Your task to perform on an android device: turn off translation in the chrome app Image 0: 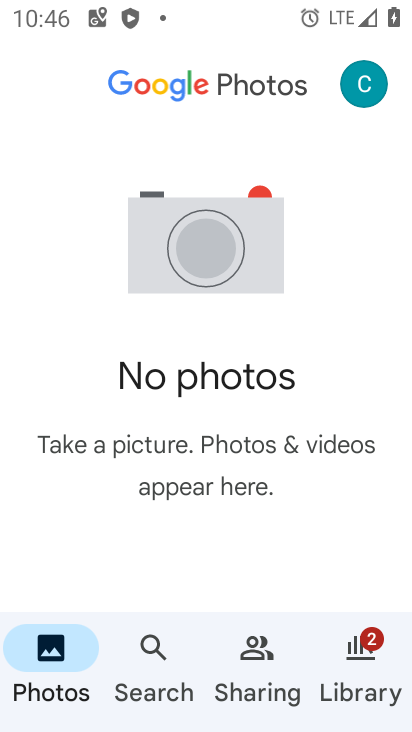
Step 0: press home button
Your task to perform on an android device: turn off translation in the chrome app Image 1: 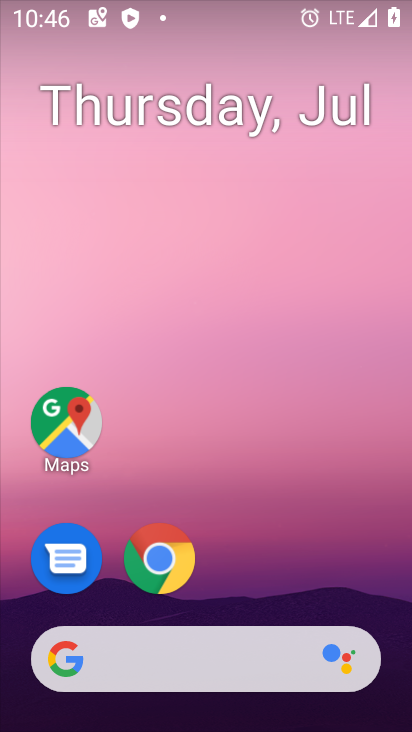
Step 1: drag from (351, 568) to (338, 68)
Your task to perform on an android device: turn off translation in the chrome app Image 2: 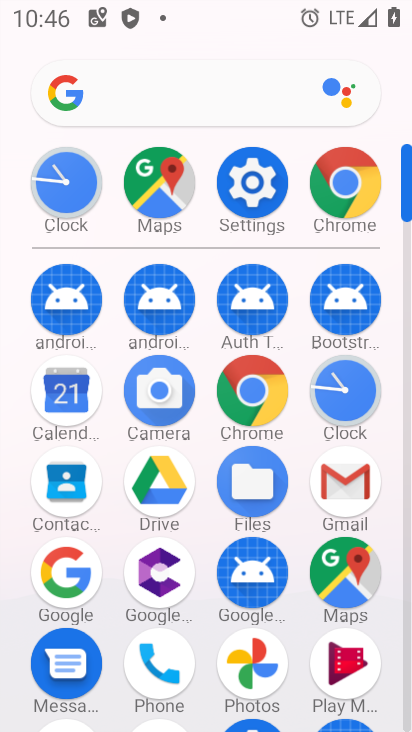
Step 2: click (355, 198)
Your task to perform on an android device: turn off translation in the chrome app Image 3: 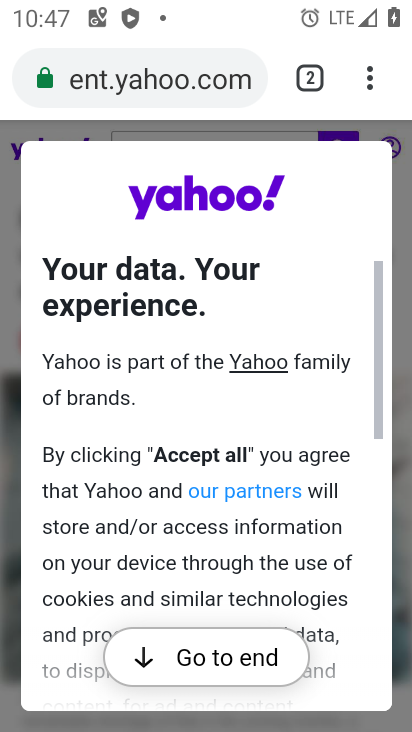
Step 3: click (367, 78)
Your task to perform on an android device: turn off translation in the chrome app Image 4: 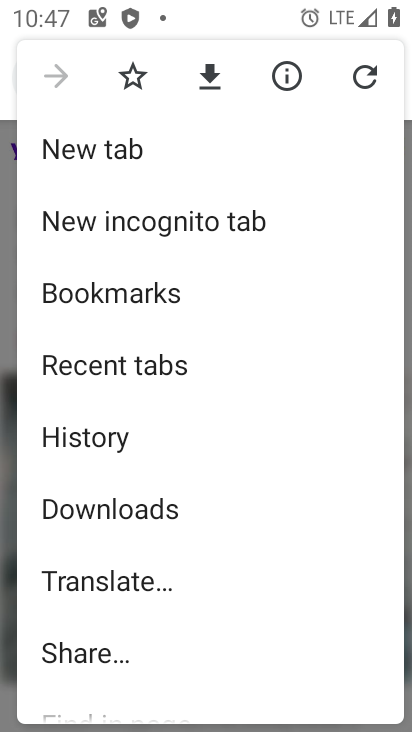
Step 4: drag from (312, 443) to (305, 329)
Your task to perform on an android device: turn off translation in the chrome app Image 5: 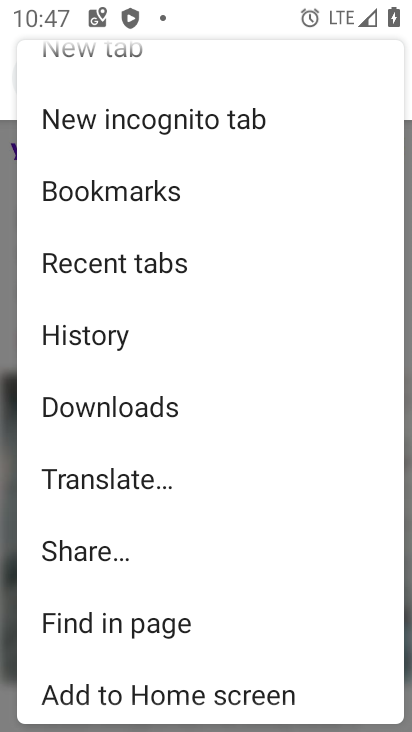
Step 5: drag from (312, 466) to (313, 364)
Your task to perform on an android device: turn off translation in the chrome app Image 6: 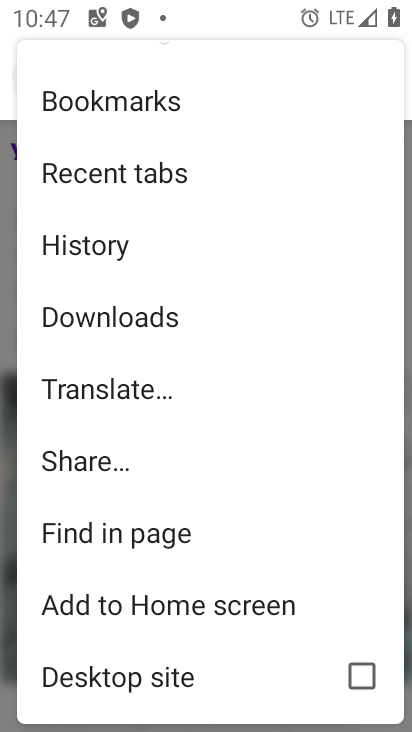
Step 6: drag from (310, 479) to (313, 272)
Your task to perform on an android device: turn off translation in the chrome app Image 7: 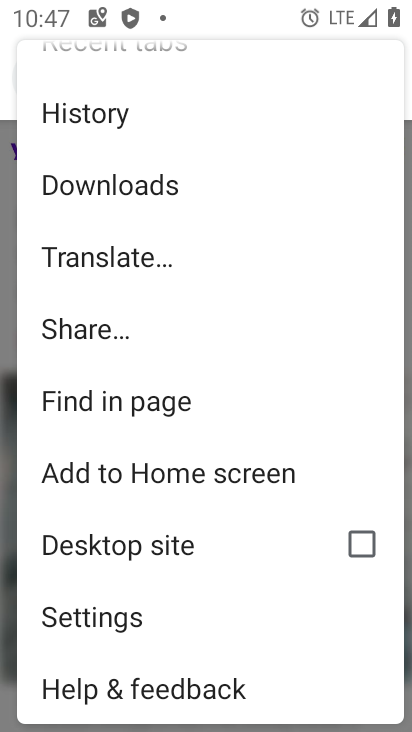
Step 7: click (202, 614)
Your task to perform on an android device: turn off translation in the chrome app Image 8: 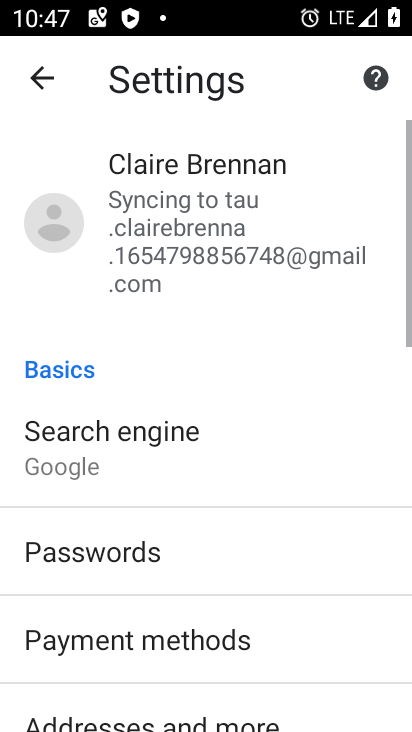
Step 8: drag from (292, 554) to (308, 450)
Your task to perform on an android device: turn off translation in the chrome app Image 9: 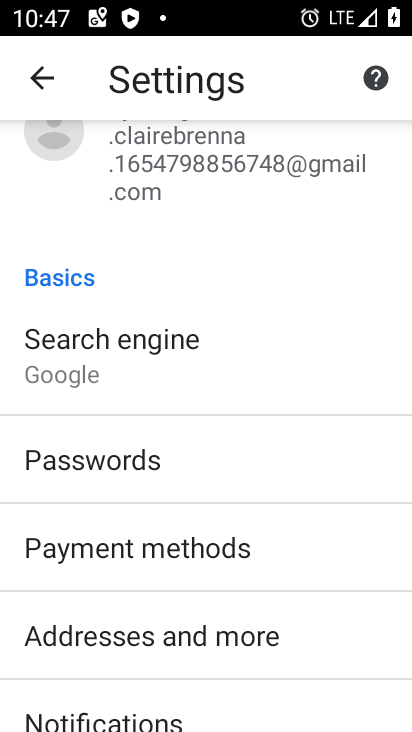
Step 9: drag from (330, 591) to (332, 485)
Your task to perform on an android device: turn off translation in the chrome app Image 10: 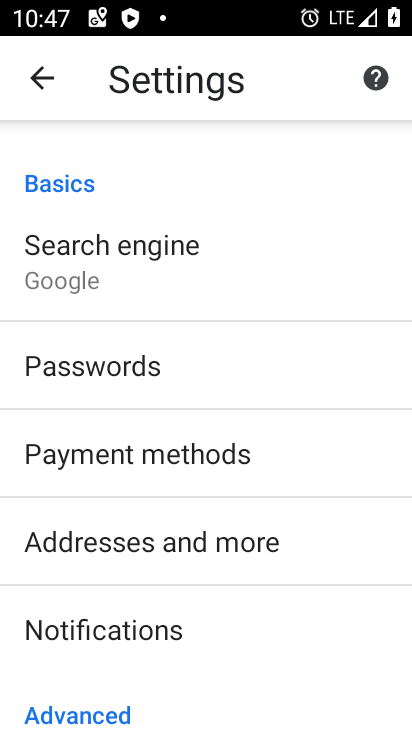
Step 10: drag from (333, 576) to (337, 478)
Your task to perform on an android device: turn off translation in the chrome app Image 11: 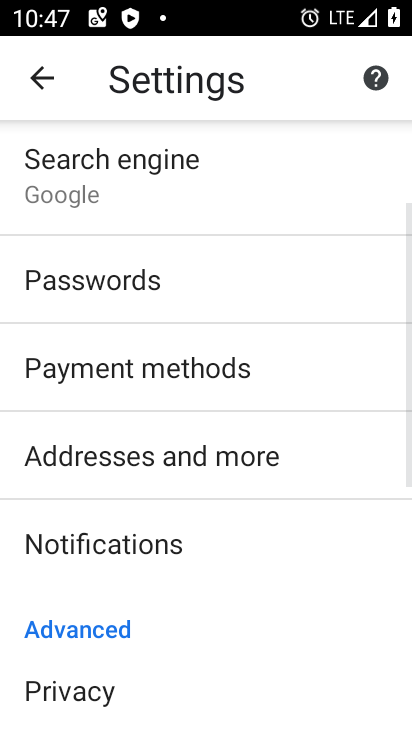
Step 11: drag from (319, 605) to (321, 508)
Your task to perform on an android device: turn off translation in the chrome app Image 12: 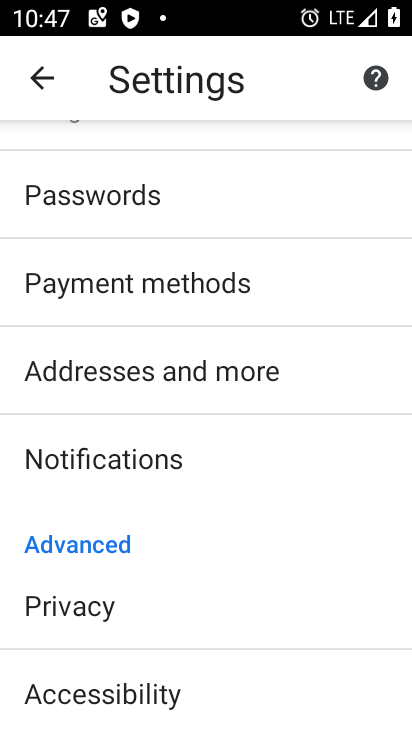
Step 12: drag from (317, 601) to (319, 506)
Your task to perform on an android device: turn off translation in the chrome app Image 13: 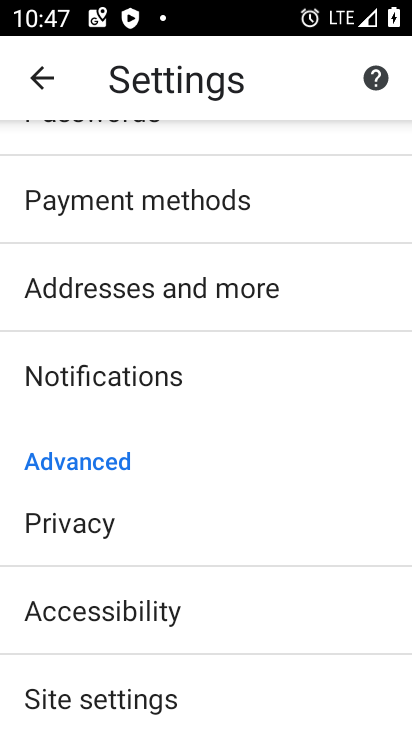
Step 13: drag from (324, 638) to (324, 536)
Your task to perform on an android device: turn off translation in the chrome app Image 14: 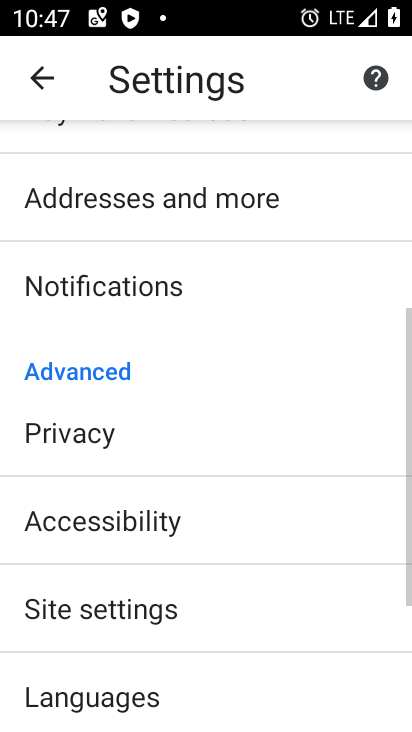
Step 14: drag from (329, 628) to (327, 506)
Your task to perform on an android device: turn off translation in the chrome app Image 15: 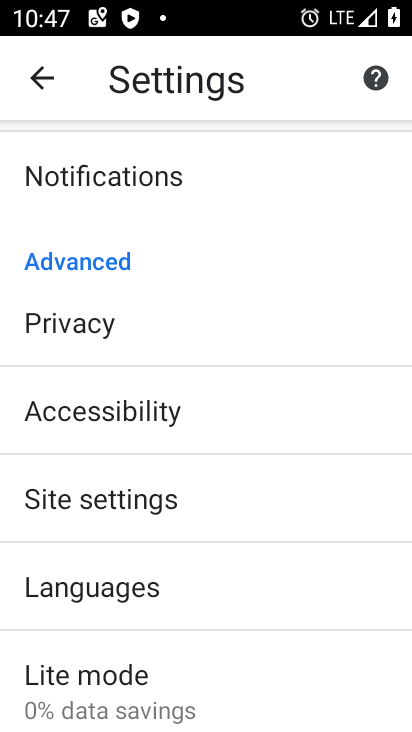
Step 15: drag from (334, 617) to (331, 359)
Your task to perform on an android device: turn off translation in the chrome app Image 16: 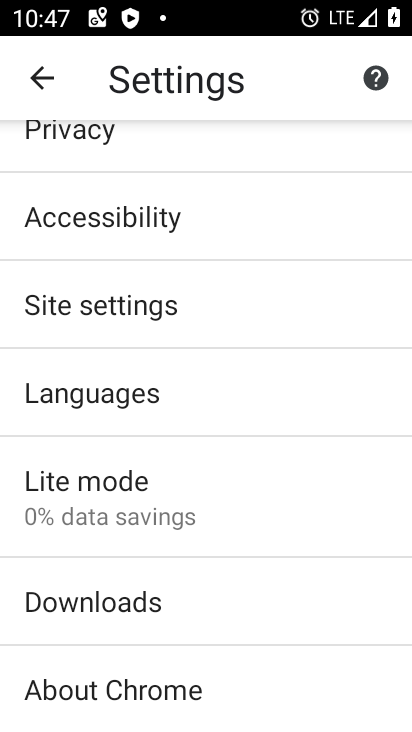
Step 16: click (327, 392)
Your task to perform on an android device: turn off translation in the chrome app Image 17: 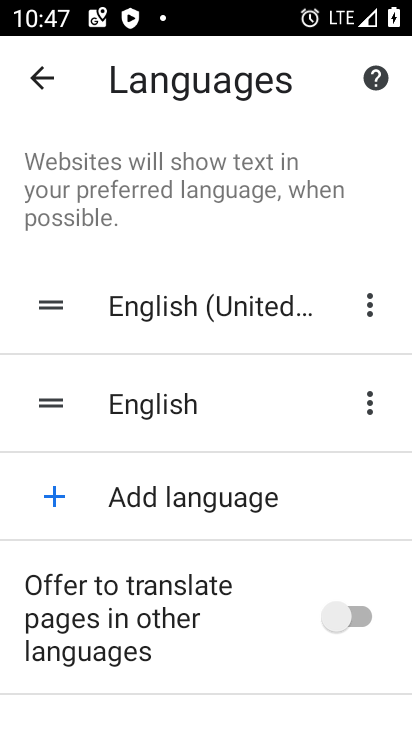
Step 17: task complete